Your task to perform on an android device: turn notification dots off Image 0: 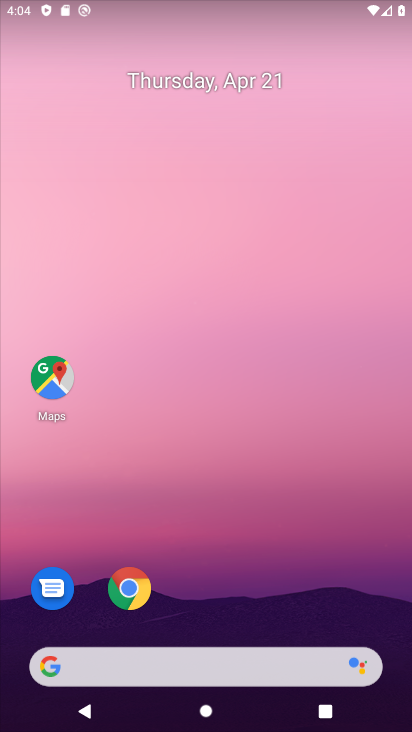
Step 0: drag from (236, 590) to (243, 168)
Your task to perform on an android device: turn notification dots off Image 1: 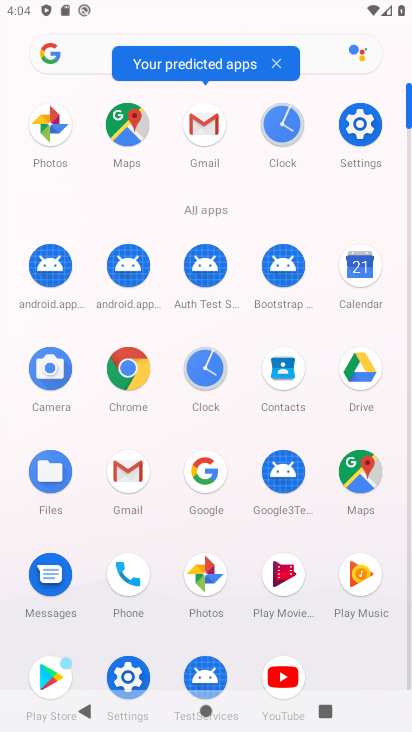
Step 1: click (363, 129)
Your task to perform on an android device: turn notification dots off Image 2: 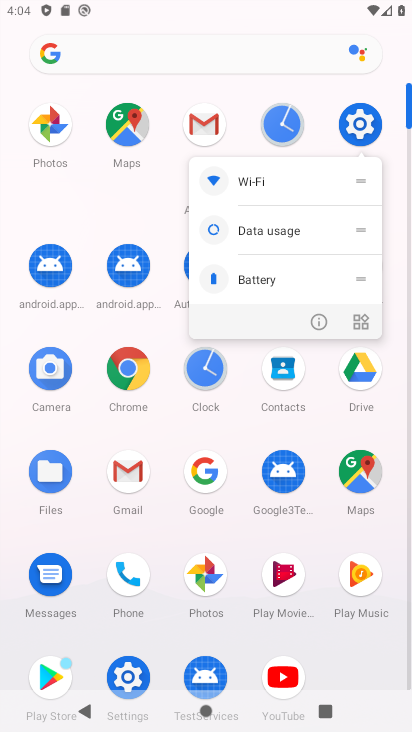
Step 2: click (363, 126)
Your task to perform on an android device: turn notification dots off Image 3: 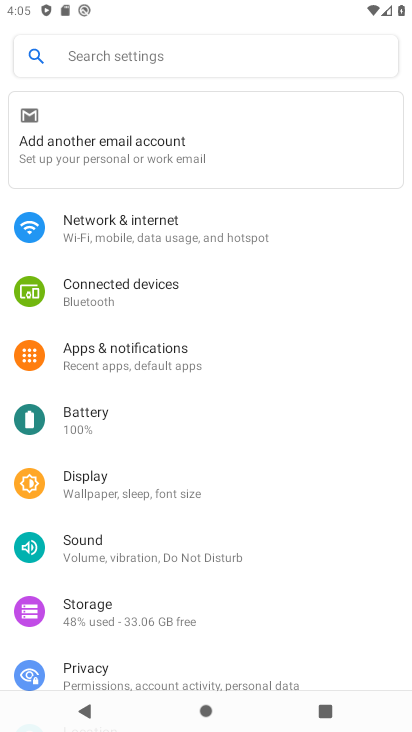
Step 3: click (189, 358)
Your task to perform on an android device: turn notification dots off Image 4: 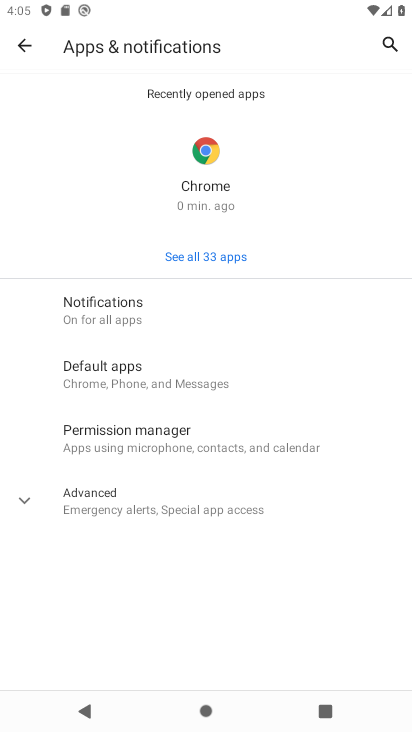
Step 4: click (150, 325)
Your task to perform on an android device: turn notification dots off Image 5: 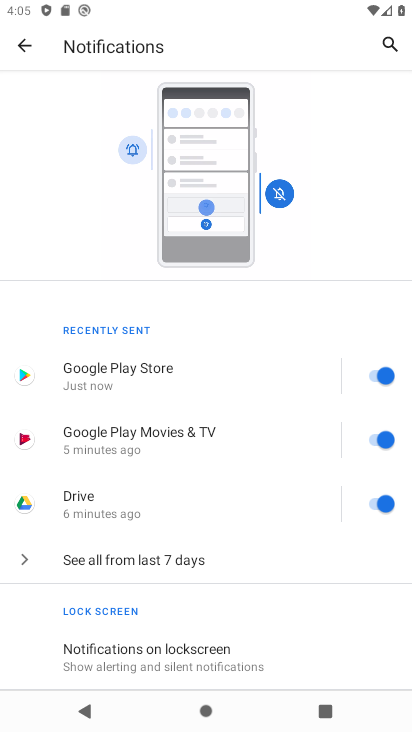
Step 5: drag from (197, 627) to (240, 306)
Your task to perform on an android device: turn notification dots off Image 6: 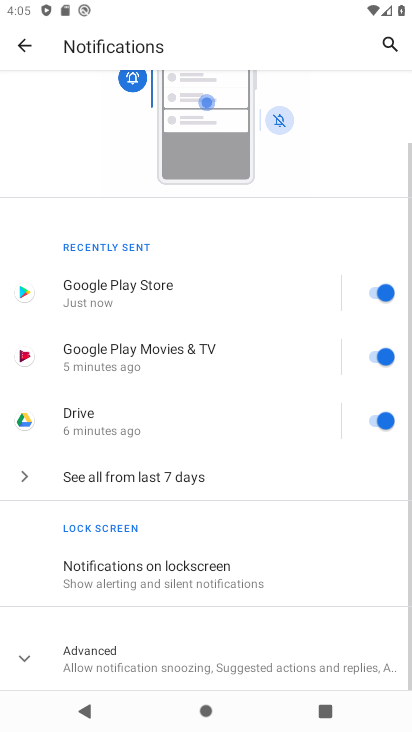
Step 6: click (26, 655)
Your task to perform on an android device: turn notification dots off Image 7: 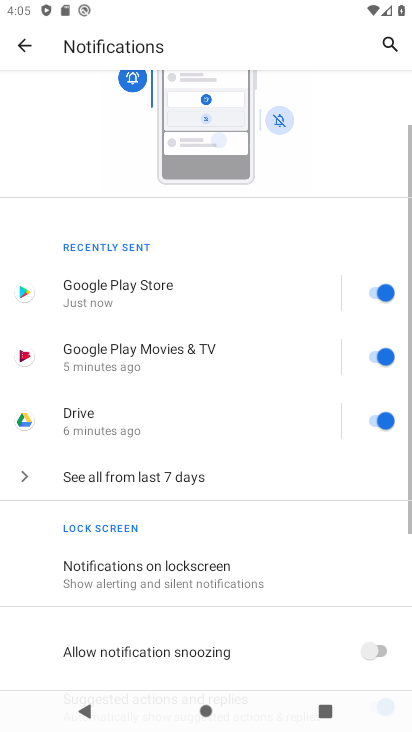
Step 7: drag from (174, 554) to (211, 349)
Your task to perform on an android device: turn notification dots off Image 8: 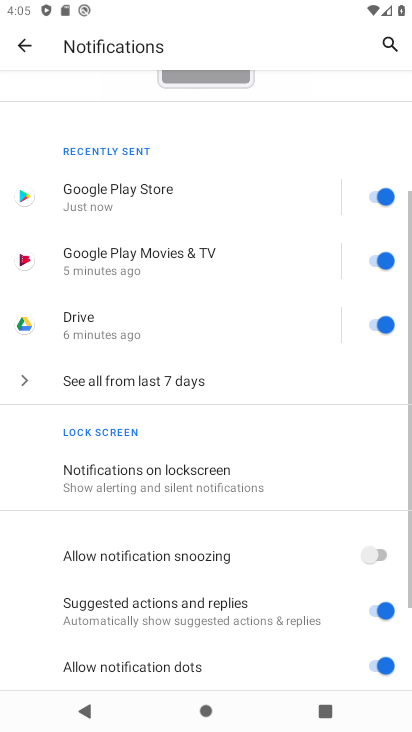
Step 8: drag from (225, 558) to (242, 390)
Your task to perform on an android device: turn notification dots off Image 9: 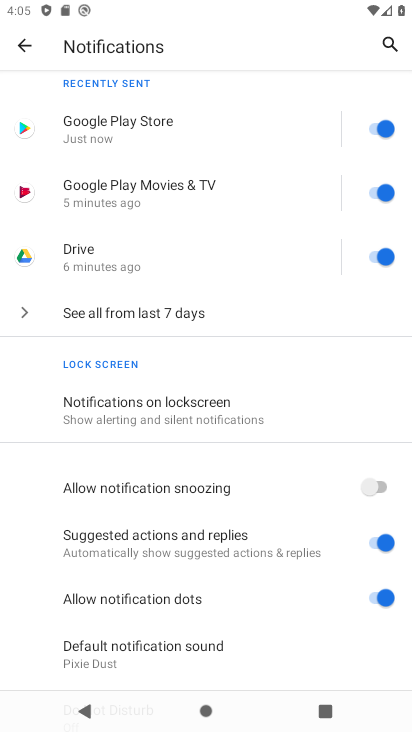
Step 9: click (380, 601)
Your task to perform on an android device: turn notification dots off Image 10: 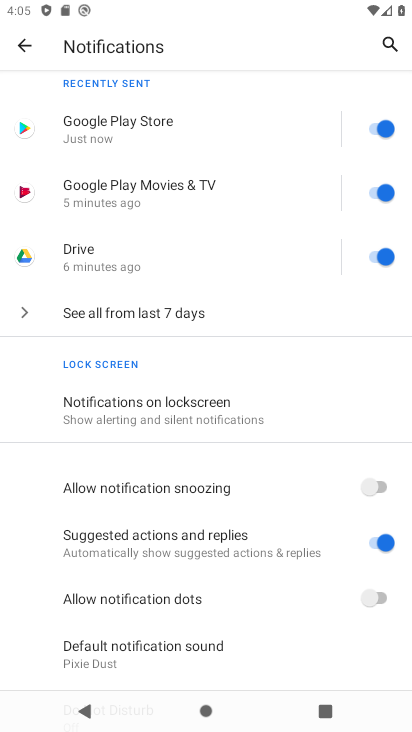
Step 10: task complete